Your task to perform on an android device: Open a new incognito window in the chrome app Image 0: 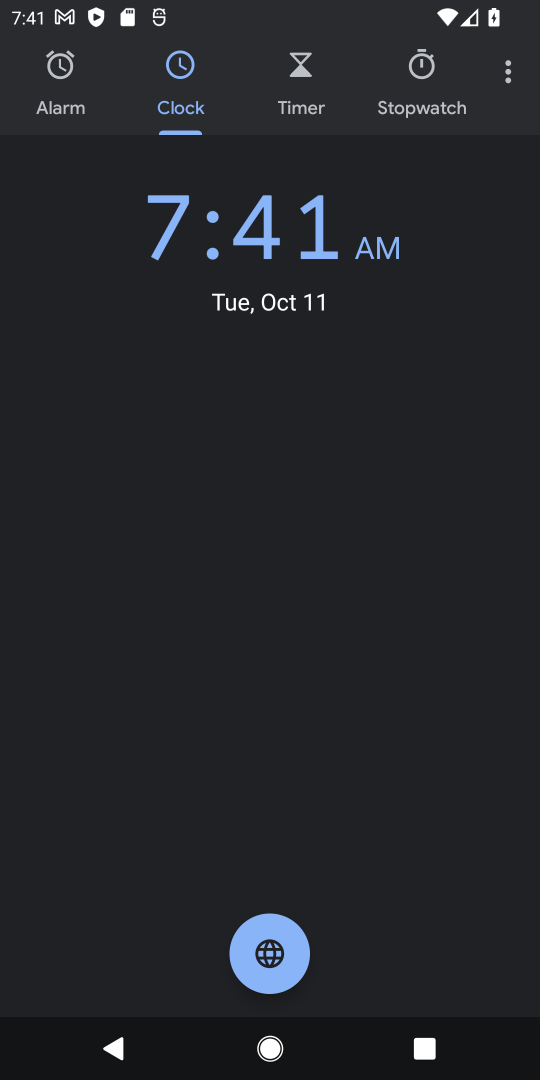
Step 0: press home button
Your task to perform on an android device: Open a new incognito window in the chrome app Image 1: 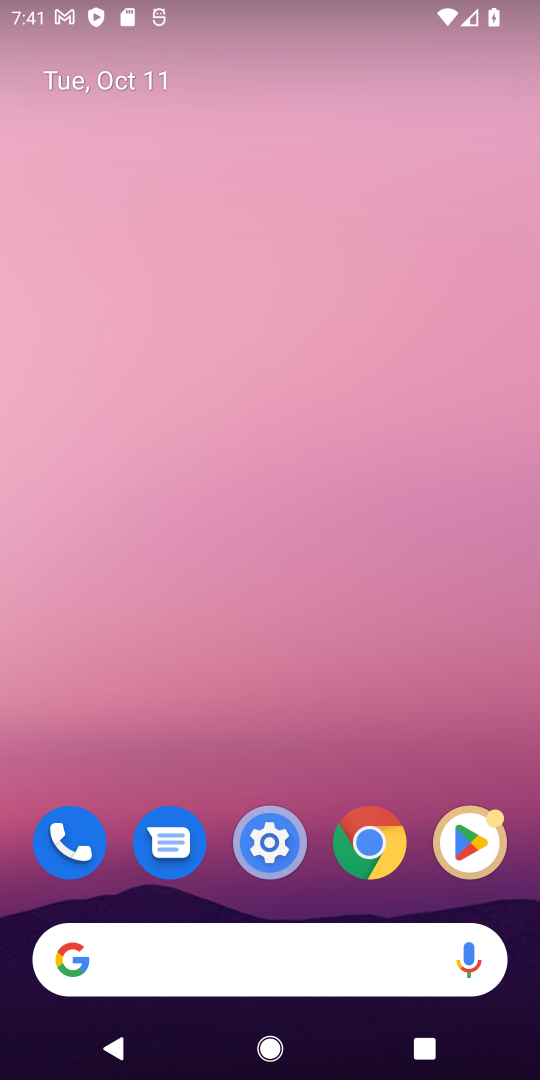
Step 1: click (372, 849)
Your task to perform on an android device: Open a new incognito window in the chrome app Image 2: 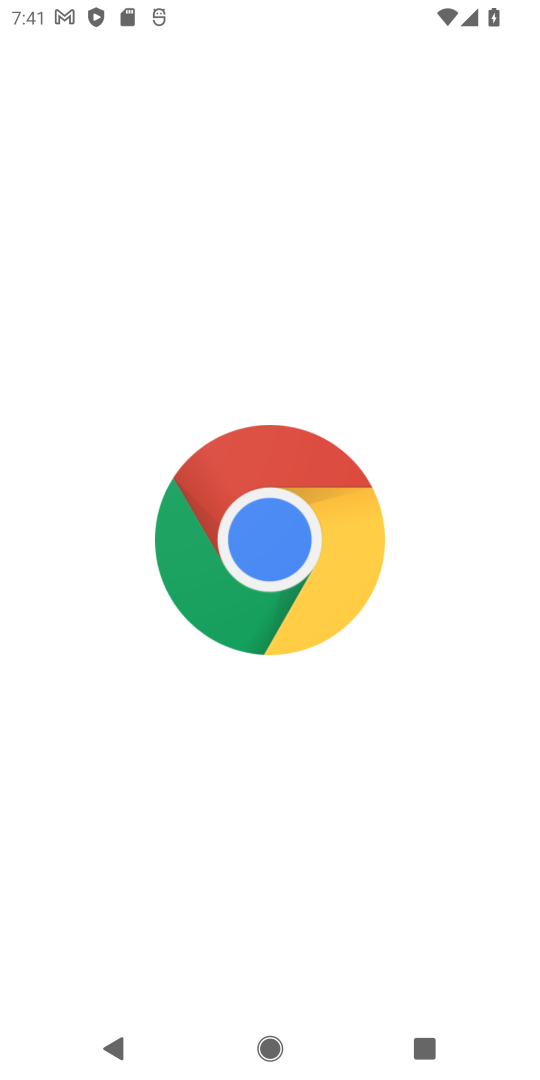
Step 2: click (372, 849)
Your task to perform on an android device: Open a new incognito window in the chrome app Image 3: 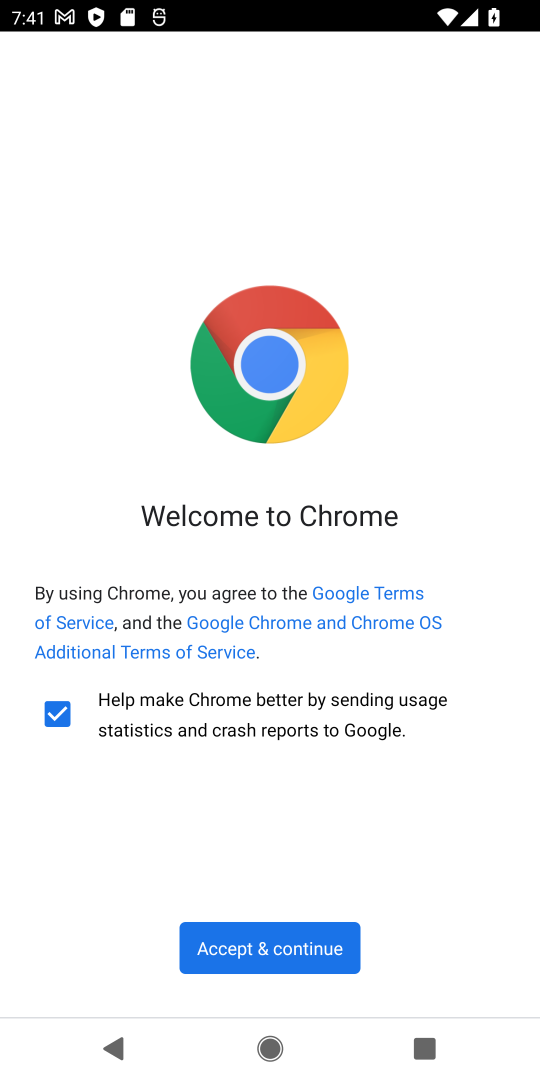
Step 3: click (281, 958)
Your task to perform on an android device: Open a new incognito window in the chrome app Image 4: 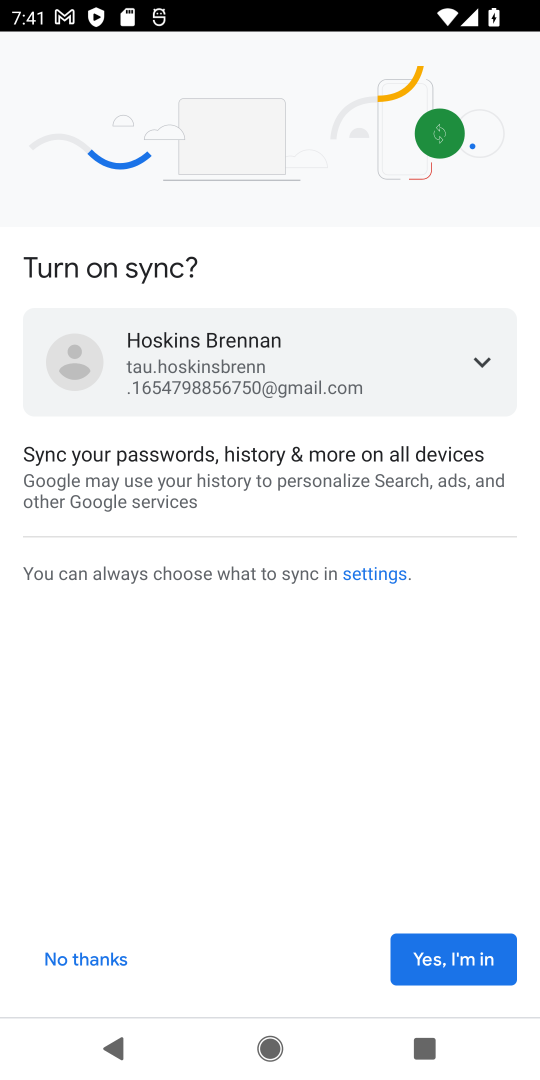
Step 4: click (424, 957)
Your task to perform on an android device: Open a new incognito window in the chrome app Image 5: 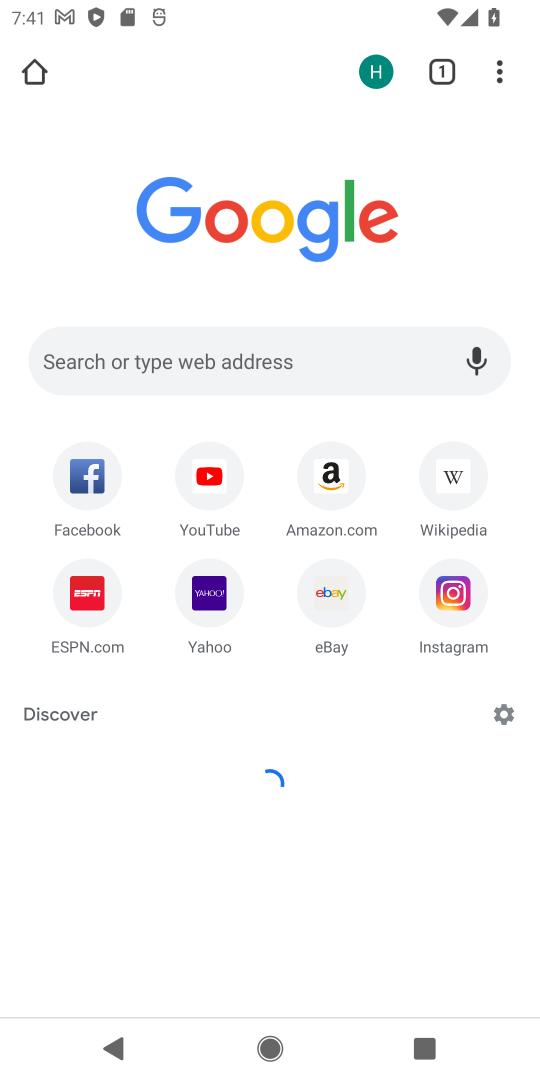
Step 5: click (424, 957)
Your task to perform on an android device: Open a new incognito window in the chrome app Image 6: 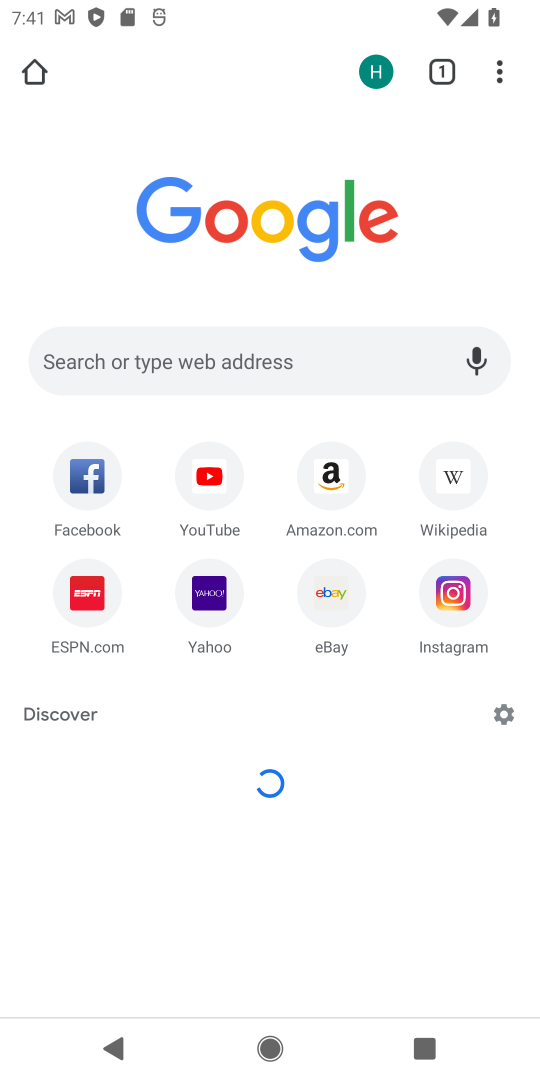
Step 6: click (506, 72)
Your task to perform on an android device: Open a new incognito window in the chrome app Image 7: 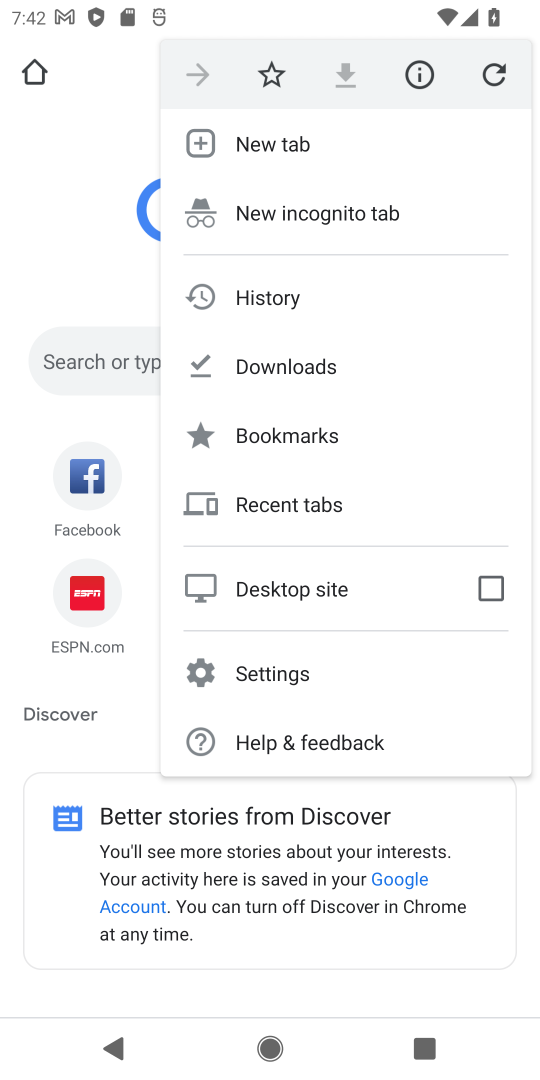
Step 7: click (346, 212)
Your task to perform on an android device: Open a new incognito window in the chrome app Image 8: 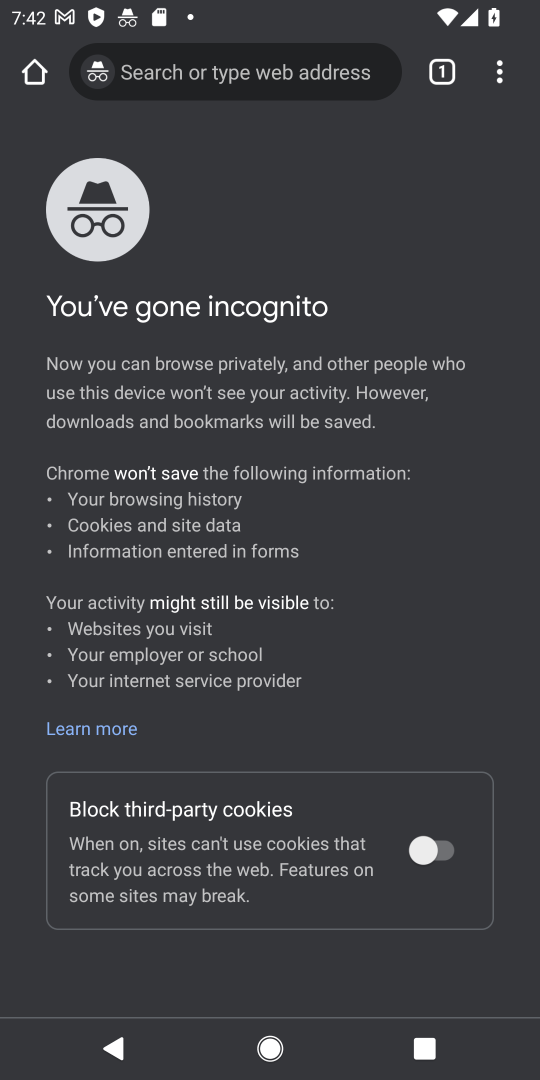
Step 8: task complete